Your task to perform on an android device: toggle translation in the chrome app Image 0: 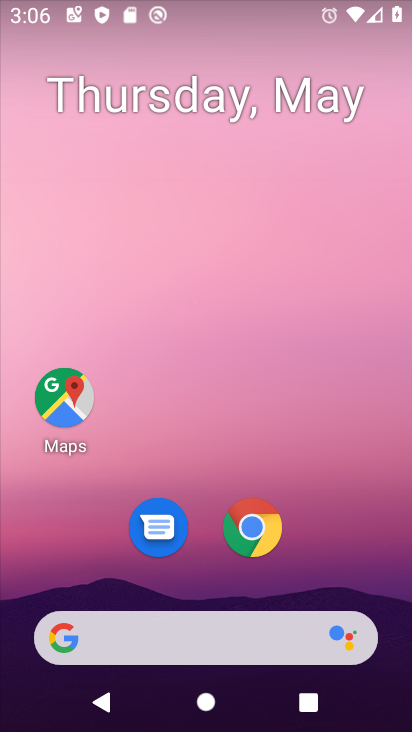
Step 0: click (254, 534)
Your task to perform on an android device: toggle translation in the chrome app Image 1: 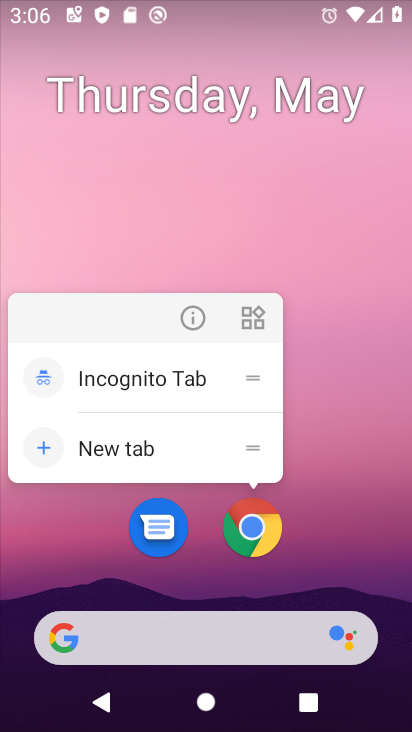
Step 1: click (253, 534)
Your task to perform on an android device: toggle translation in the chrome app Image 2: 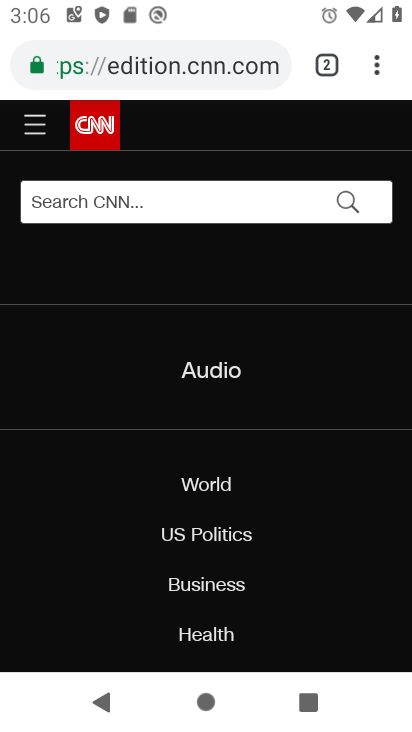
Step 2: drag from (389, 52) to (278, 583)
Your task to perform on an android device: toggle translation in the chrome app Image 3: 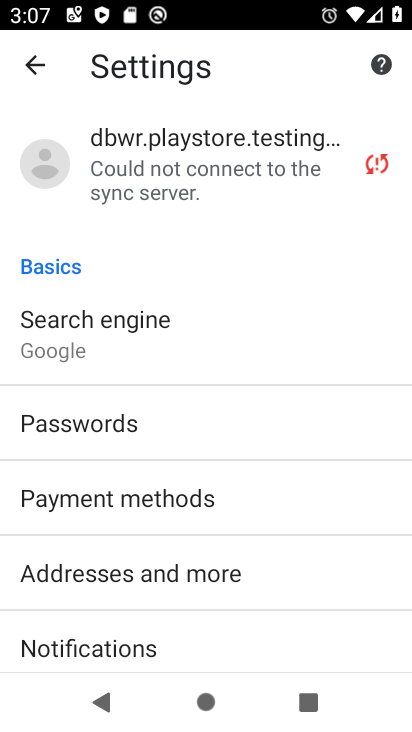
Step 3: drag from (136, 675) to (295, 297)
Your task to perform on an android device: toggle translation in the chrome app Image 4: 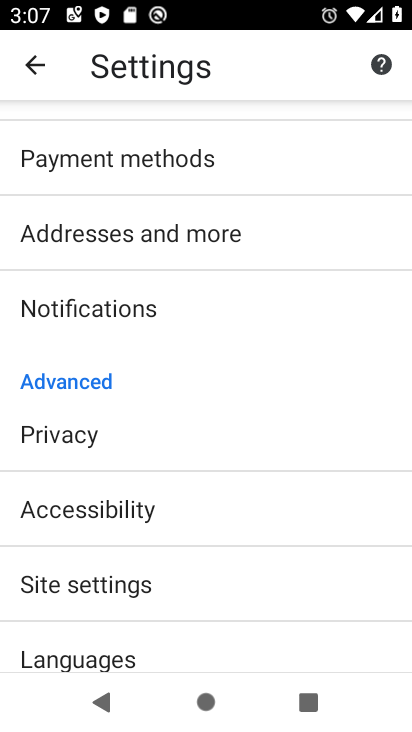
Step 4: click (120, 653)
Your task to perform on an android device: toggle translation in the chrome app Image 5: 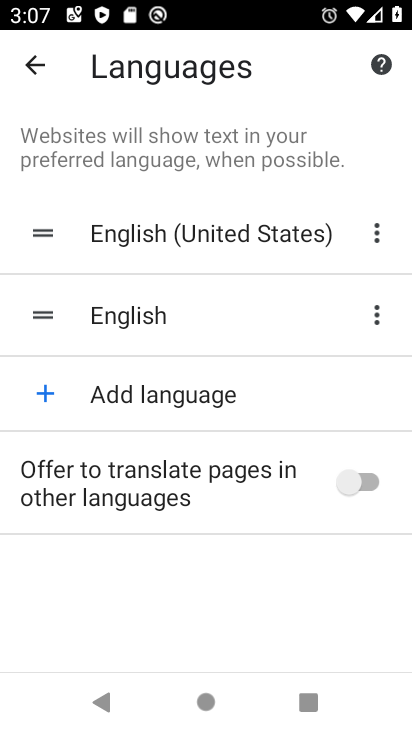
Step 5: click (408, 483)
Your task to perform on an android device: toggle translation in the chrome app Image 6: 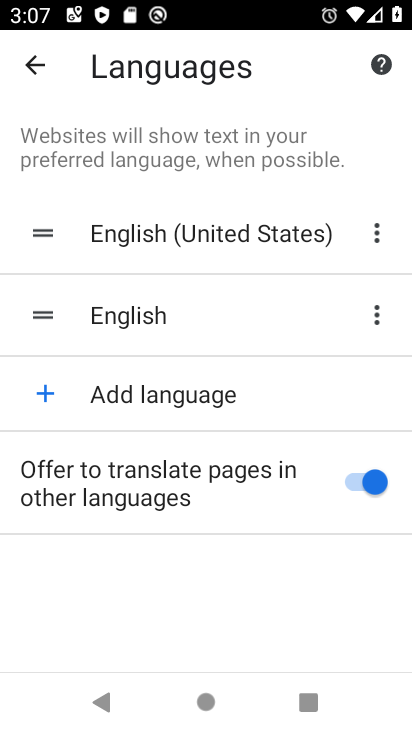
Step 6: task complete